Your task to perform on an android device: Open Reddit.com Image 0: 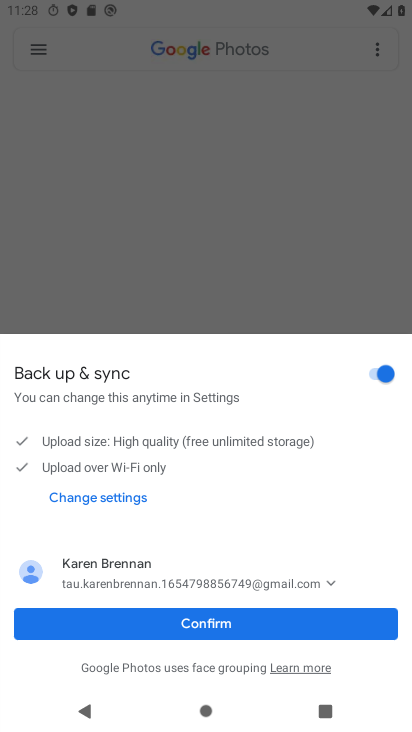
Step 0: press home button
Your task to perform on an android device: Open Reddit.com Image 1: 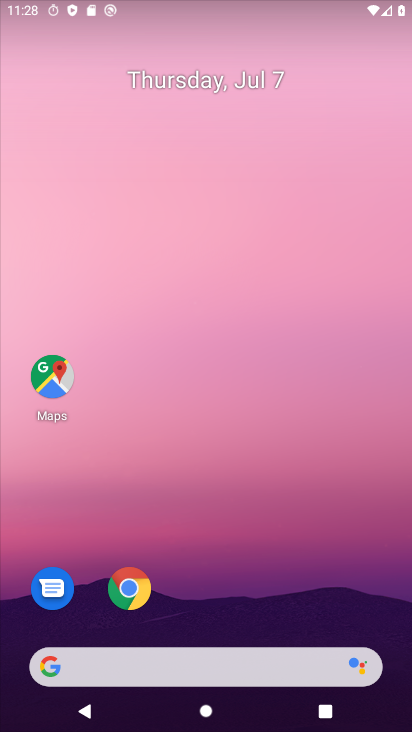
Step 1: drag from (204, 600) to (295, 102)
Your task to perform on an android device: Open Reddit.com Image 2: 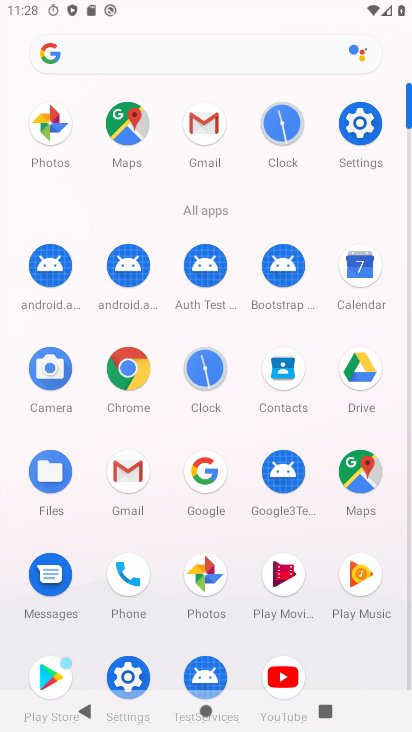
Step 2: click (122, 371)
Your task to perform on an android device: Open Reddit.com Image 3: 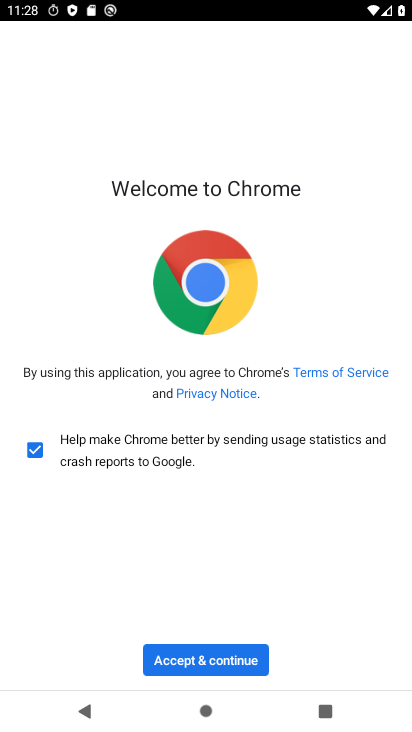
Step 3: click (200, 659)
Your task to perform on an android device: Open Reddit.com Image 4: 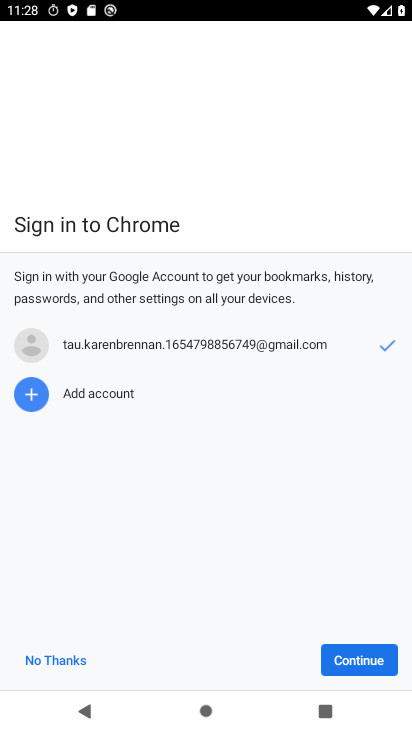
Step 4: click (43, 666)
Your task to perform on an android device: Open Reddit.com Image 5: 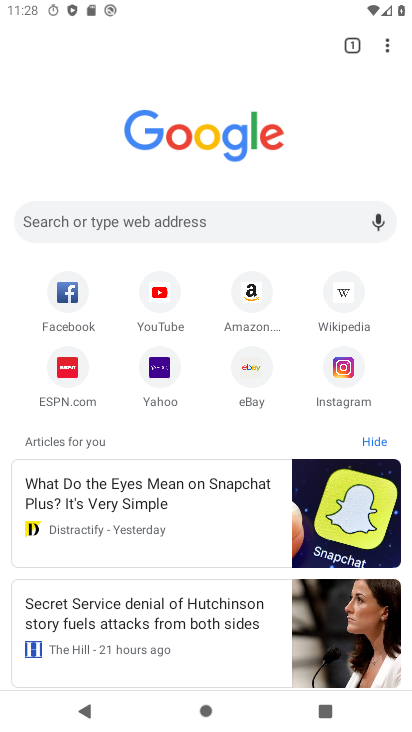
Step 5: click (228, 227)
Your task to perform on an android device: Open Reddit.com Image 6: 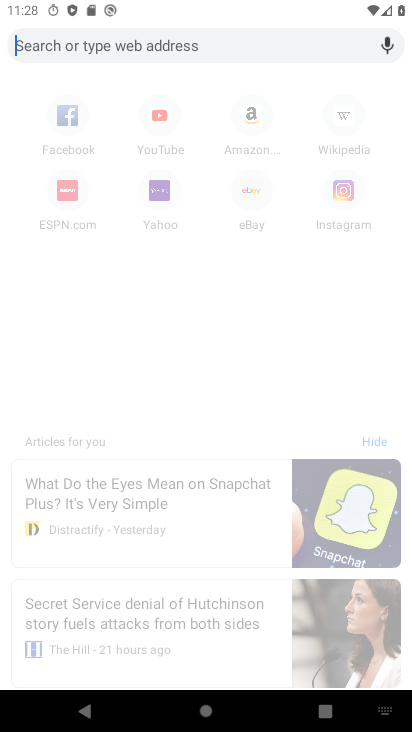
Step 6: type "Reddit.com"
Your task to perform on an android device: Open Reddit.com Image 7: 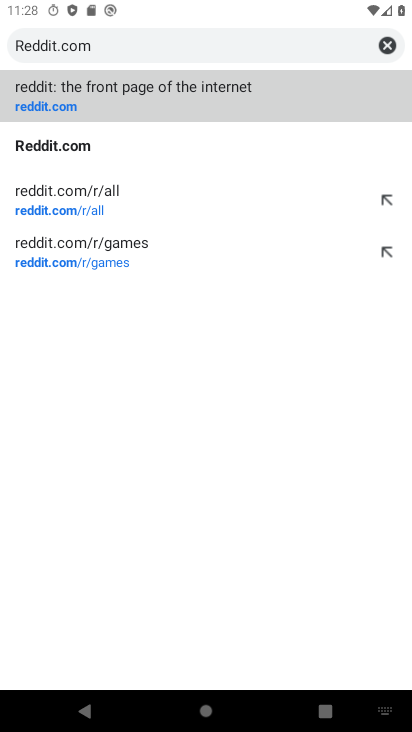
Step 7: click (63, 102)
Your task to perform on an android device: Open Reddit.com Image 8: 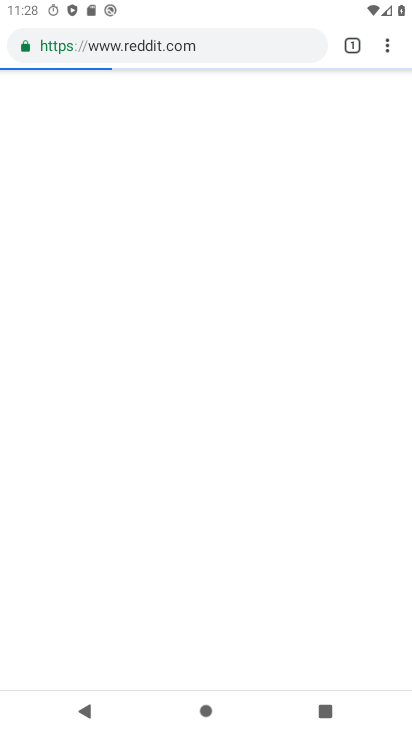
Step 8: drag from (211, 506) to (293, 92)
Your task to perform on an android device: Open Reddit.com Image 9: 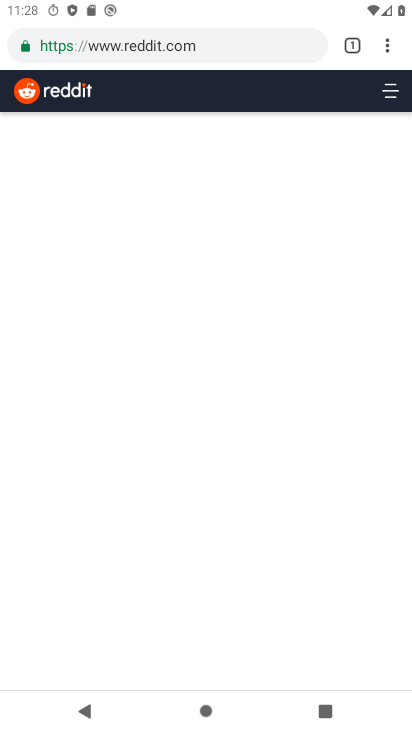
Step 9: drag from (198, 537) to (243, 126)
Your task to perform on an android device: Open Reddit.com Image 10: 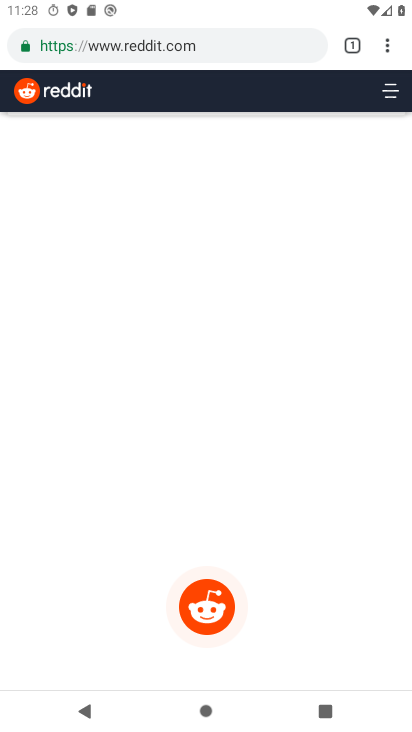
Step 10: drag from (183, 445) to (239, 142)
Your task to perform on an android device: Open Reddit.com Image 11: 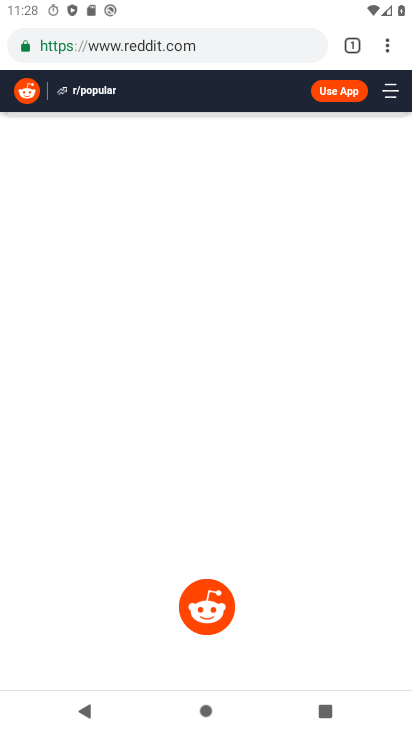
Step 11: drag from (235, 431) to (203, 223)
Your task to perform on an android device: Open Reddit.com Image 12: 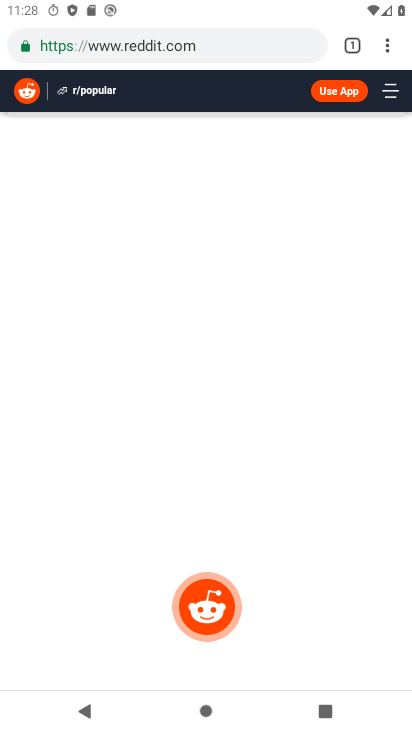
Step 12: drag from (237, 522) to (255, 246)
Your task to perform on an android device: Open Reddit.com Image 13: 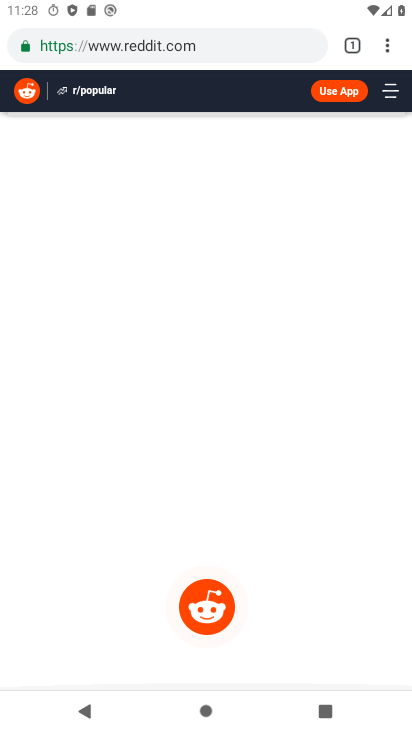
Step 13: drag from (226, 585) to (229, 275)
Your task to perform on an android device: Open Reddit.com Image 14: 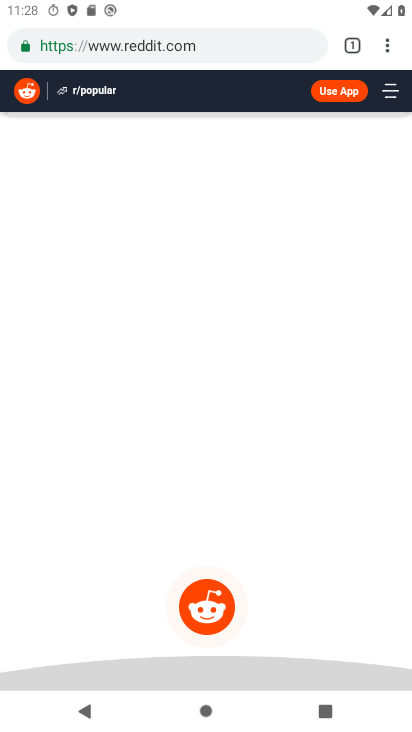
Step 14: drag from (197, 446) to (186, 209)
Your task to perform on an android device: Open Reddit.com Image 15: 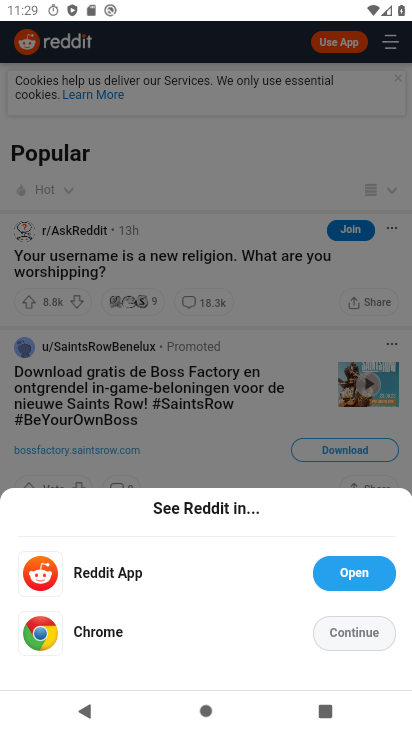
Step 15: click (248, 169)
Your task to perform on an android device: Open Reddit.com Image 16: 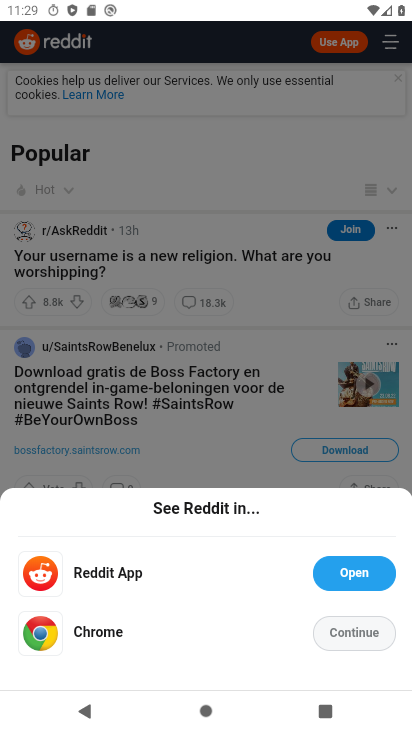
Step 16: task complete